Your task to perform on an android device: open wifi settings Image 0: 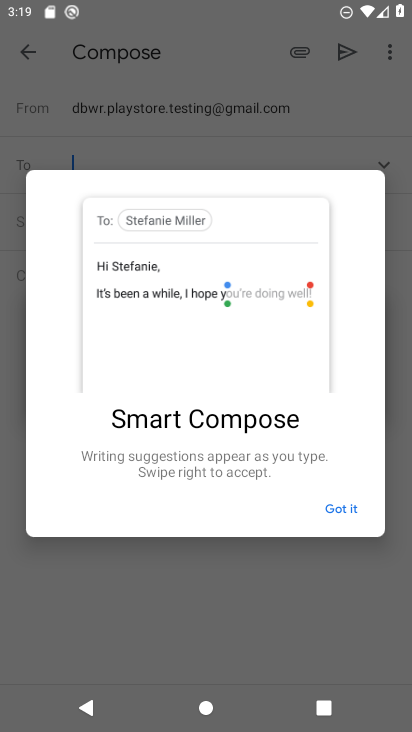
Step 0: click (278, 147)
Your task to perform on an android device: open wifi settings Image 1: 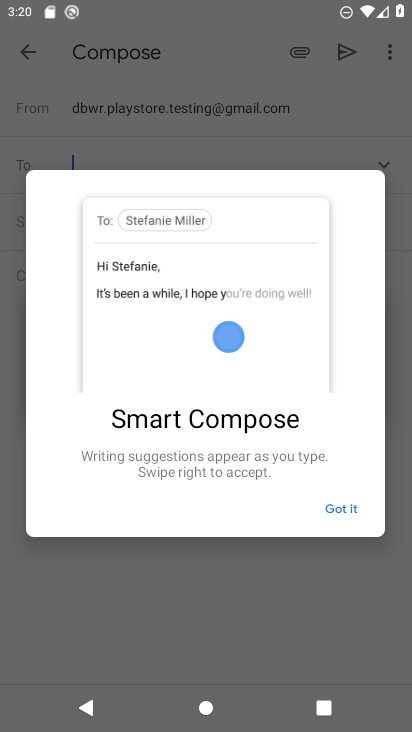
Step 1: click (333, 514)
Your task to perform on an android device: open wifi settings Image 2: 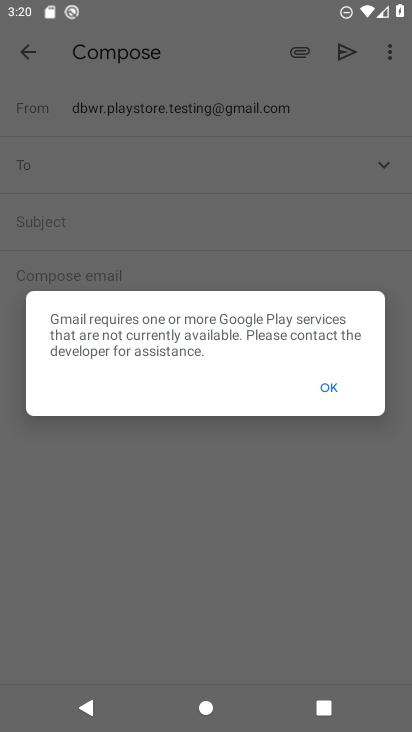
Step 2: click (324, 387)
Your task to perform on an android device: open wifi settings Image 3: 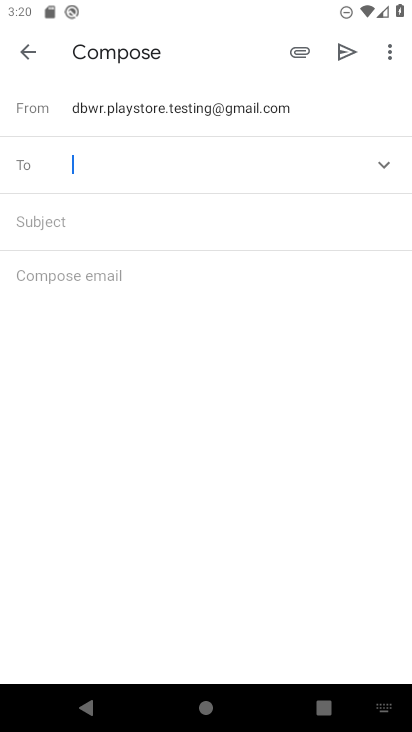
Step 3: drag from (223, 7) to (284, 534)
Your task to perform on an android device: open wifi settings Image 4: 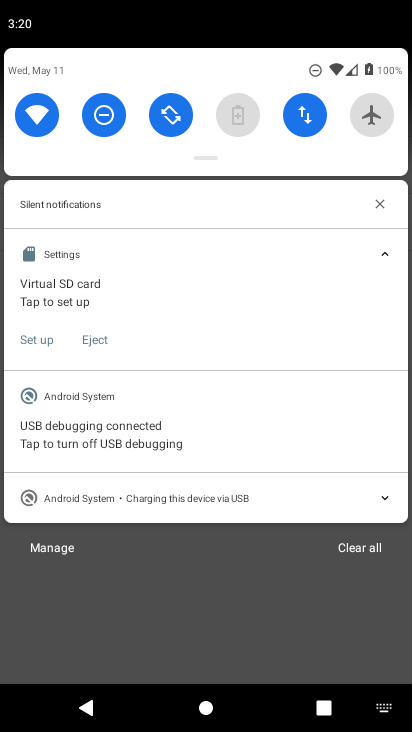
Step 4: click (36, 119)
Your task to perform on an android device: open wifi settings Image 5: 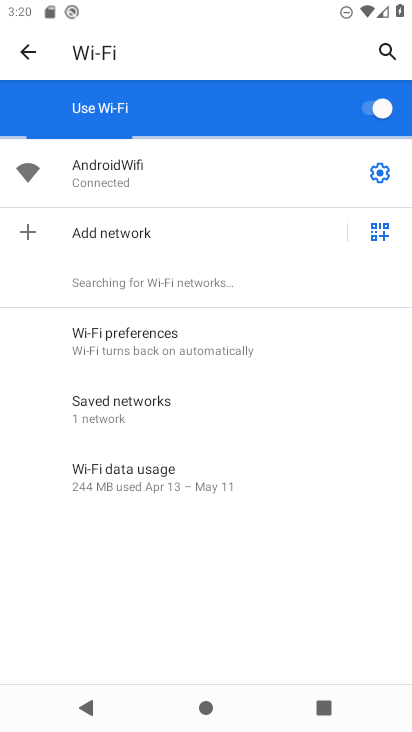
Step 5: task complete